Your task to perform on an android device: change the clock display to digital Image 0: 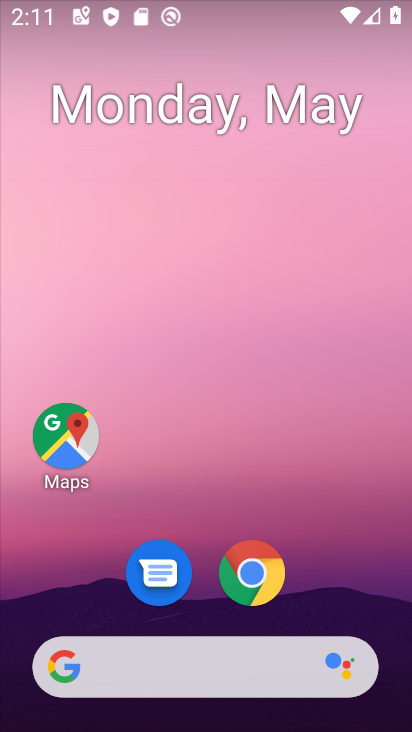
Step 0: drag from (81, 544) to (233, 84)
Your task to perform on an android device: change the clock display to digital Image 1: 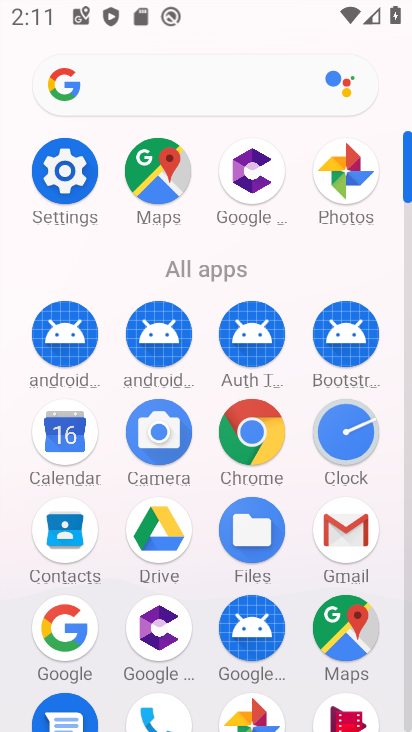
Step 1: click (349, 443)
Your task to perform on an android device: change the clock display to digital Image 2: 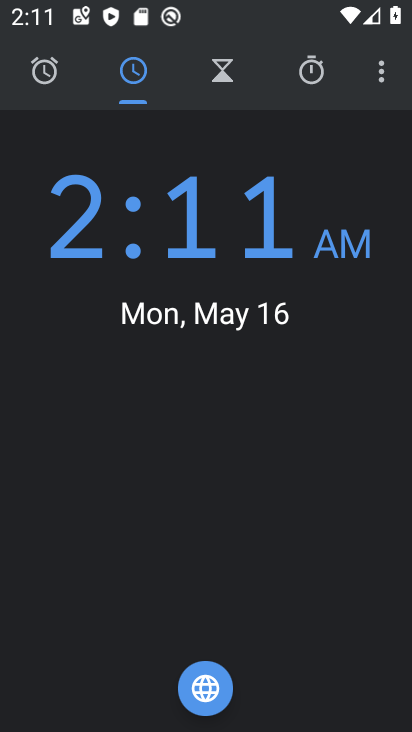
Step 2: click (393, 82)
Your task to perform on an android device: change the clock display to digital Image 3: 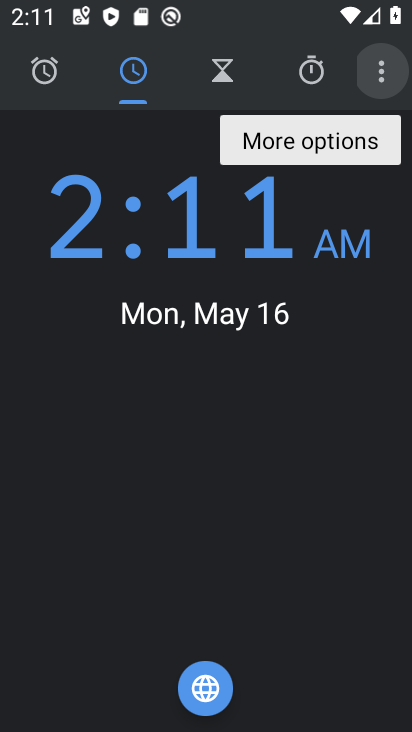
Step 3: click (393, 80)
Your task to perform on an android device: change the clock display to digital Image 4: 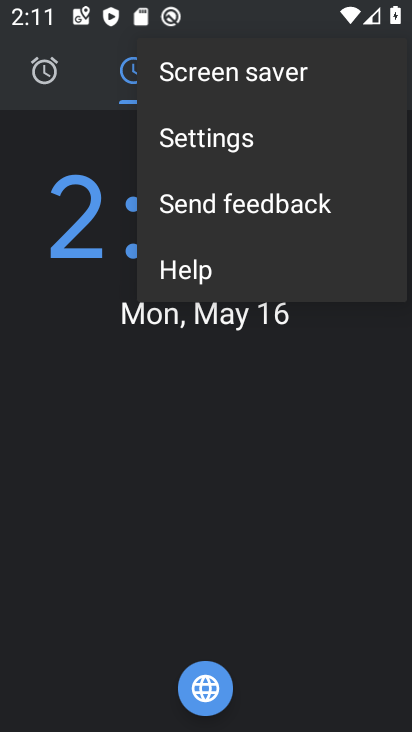
Step 4: click (308, 119)
Your task to perform on an android device: change the clock display to digital Image 5: 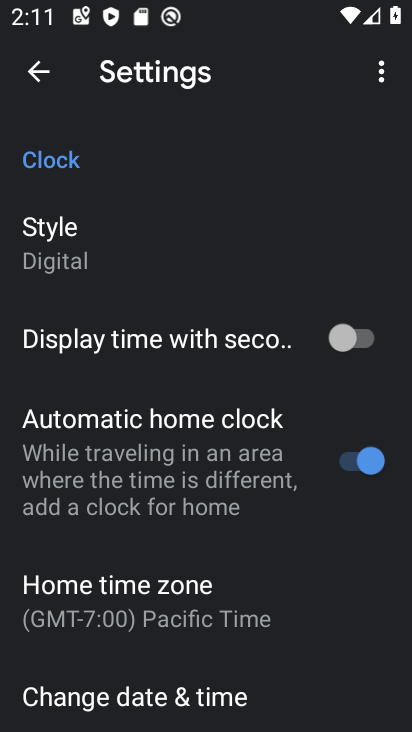
Step 5: click (195, 237)
Your task to perform on an android device: change the clock display to digital Image 6: 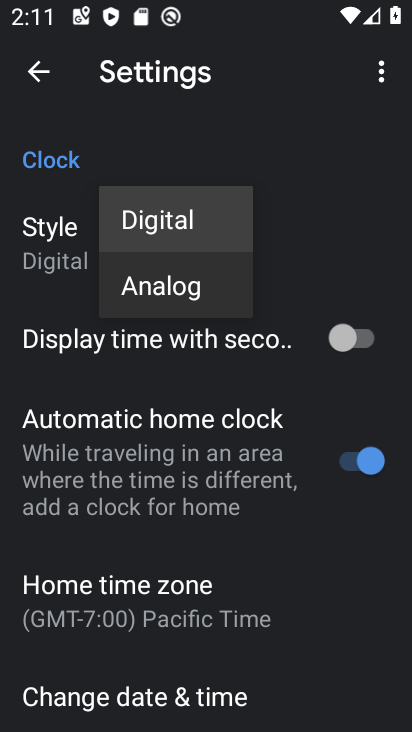
Step 6: task complete